Your task to perform on an android device: allow notifications from all sites in the chrome app Image 0: 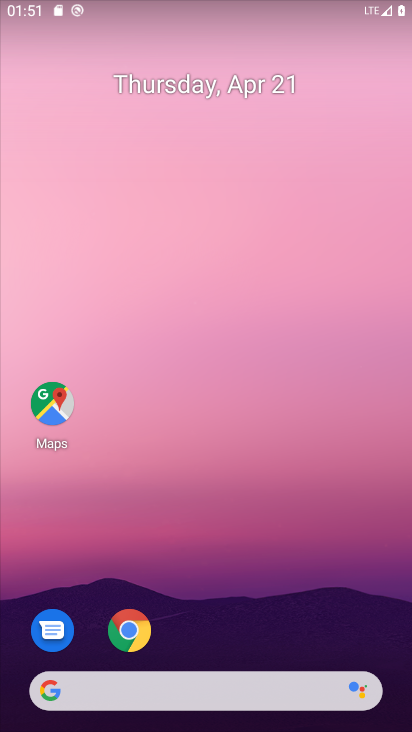
Step 0: drag from (247, 626) to (325, 36)
Your task to perform on an android device: allow notifications from all sites in the chrome app Image 1: 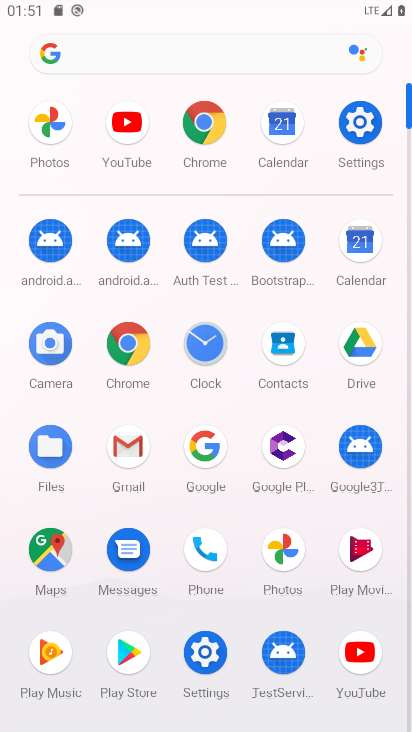
Step 1: click (133, 340)
Your task to perform on an android device: allow notifications from all sites in the chrome app Image 2: 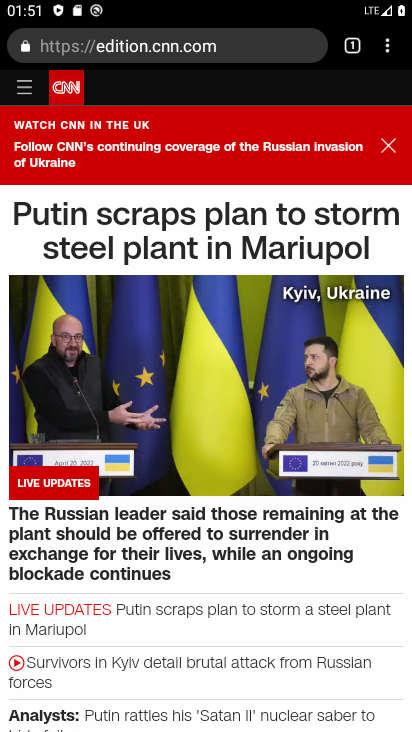
Step 2: click (377, 54)
Your task to perform on an android device: allow notifications from all sites in the chrome app Image 3: 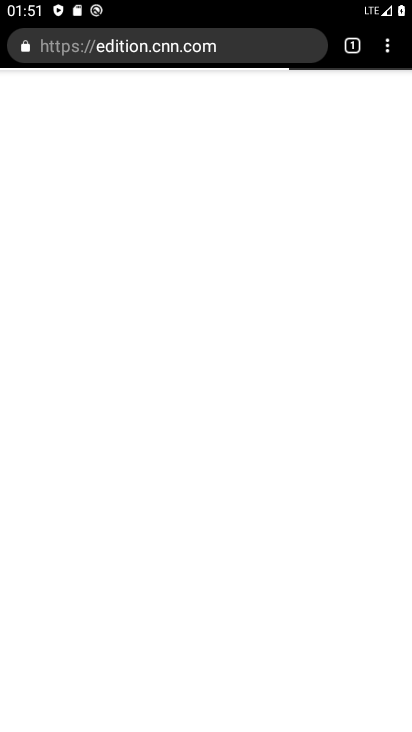
Step 3: click (391, 59)
Your task to perform on an android device: allow notifications from all sites in the chrome app Image 4: 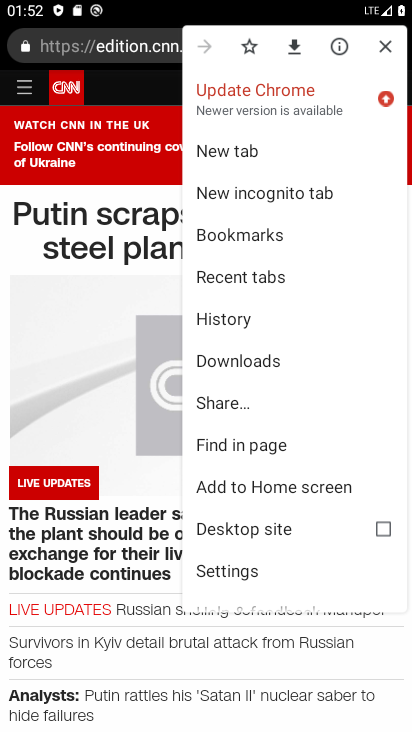
Step 4: click (283, 571)
Your task to perform on an android device: allow notifications from all sites in the chrome app Image 5: 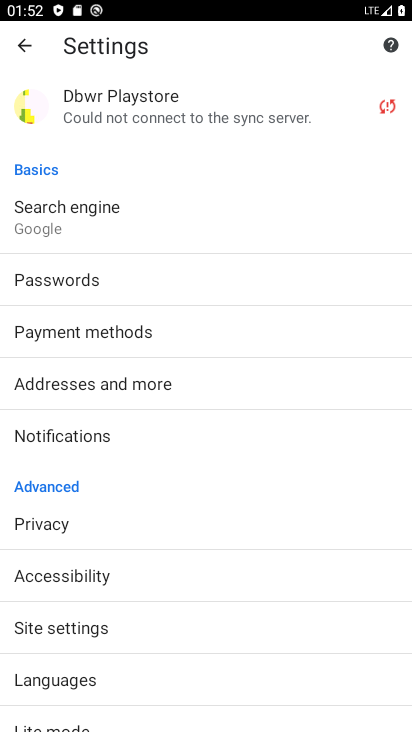
Step 5: drag from (188, 618) to (227, 411)
Your task to perform on an android device: allow notifications from all sites in the chrome app Image 6: 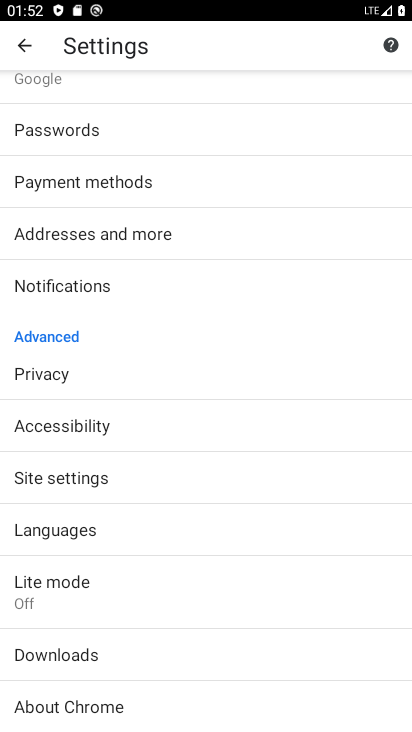
Step 6: click (158, 485)
Your task to perform on an android device: allow notifications from all sites in the chrome app Image 7: 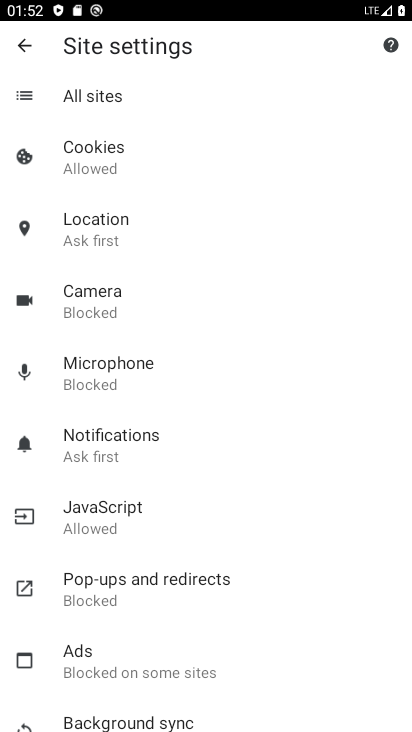
Step 7: task complete